Your task to perform on an android device: uninstall "Pandora - Music & Podcasts" Image 0: 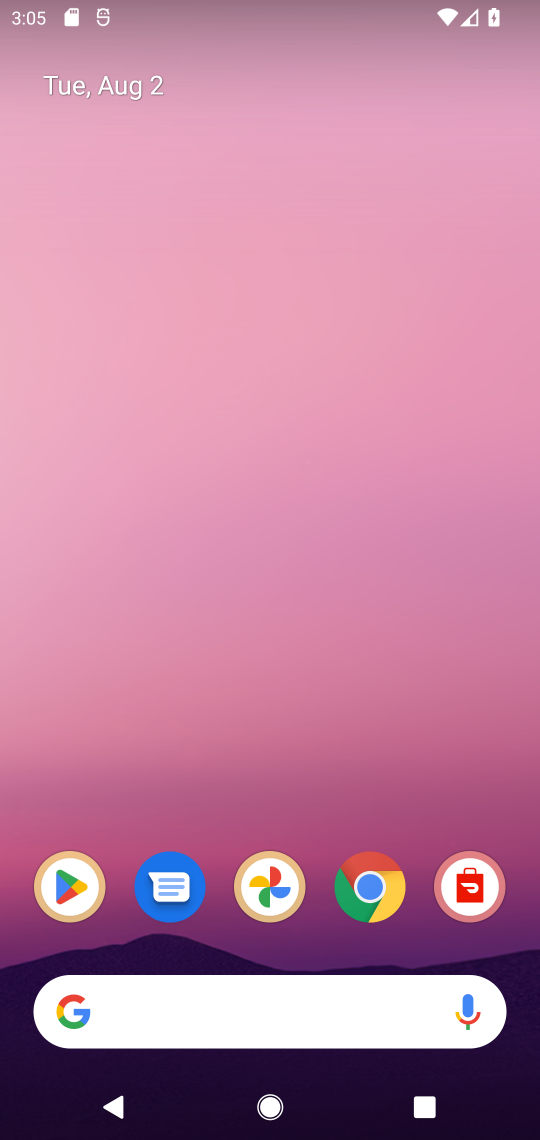
Step 0: drag from (27, 1054) to (224, 420)
Your task to perform on an android device: uninstall "Pandora - Music & Podcasts" Image 1: 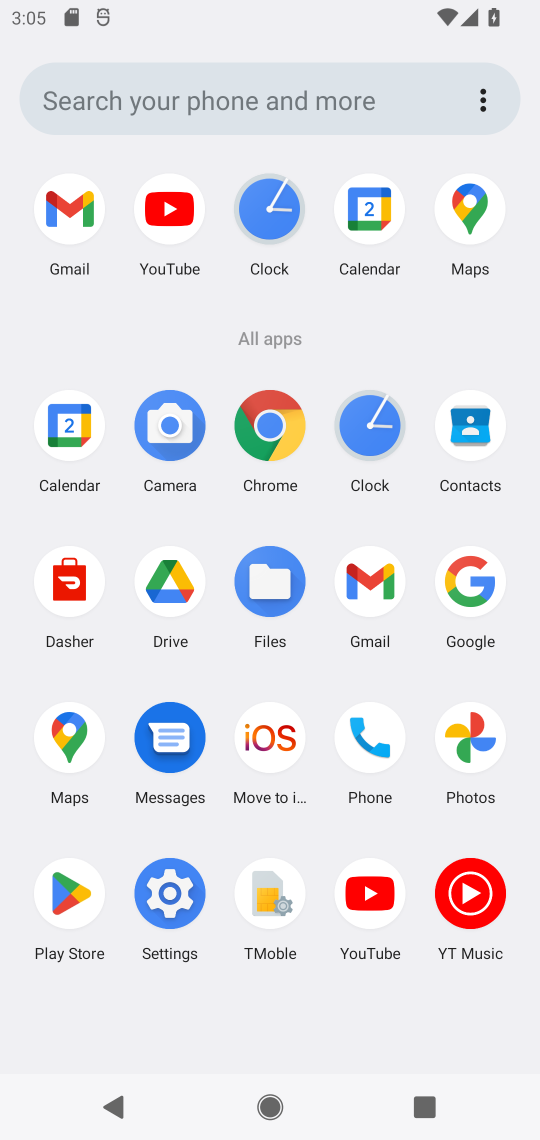
Step 1: click (75, 896)
Your task to perform on an android device: uninstall "Pandora - Music & Podcasts" Image 2: 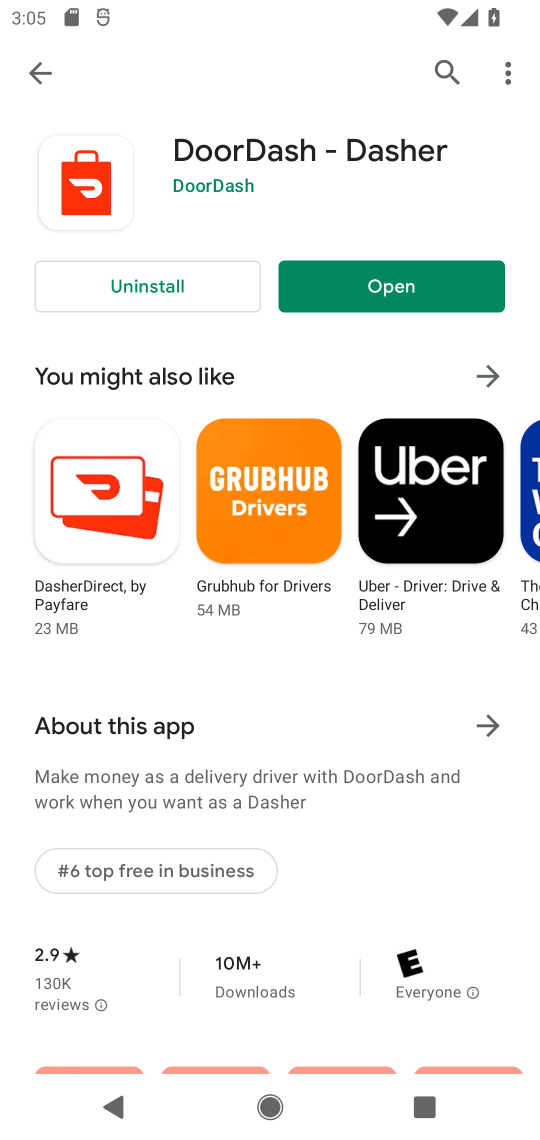
Step 2: click (40, 81)
Your task to perform on an android device: uninstall "Pandora - Music & Podcasts" Image 3: 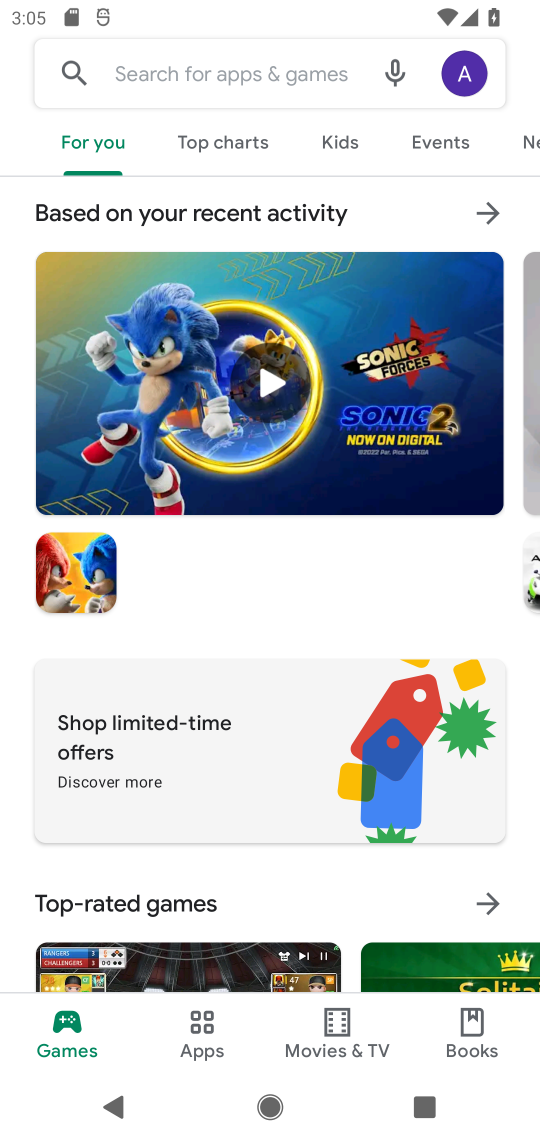
Step 3: click (127, 67)
Your task to perform on an android device: uninstall "Pandora - Music & Podcasts" Image 4: 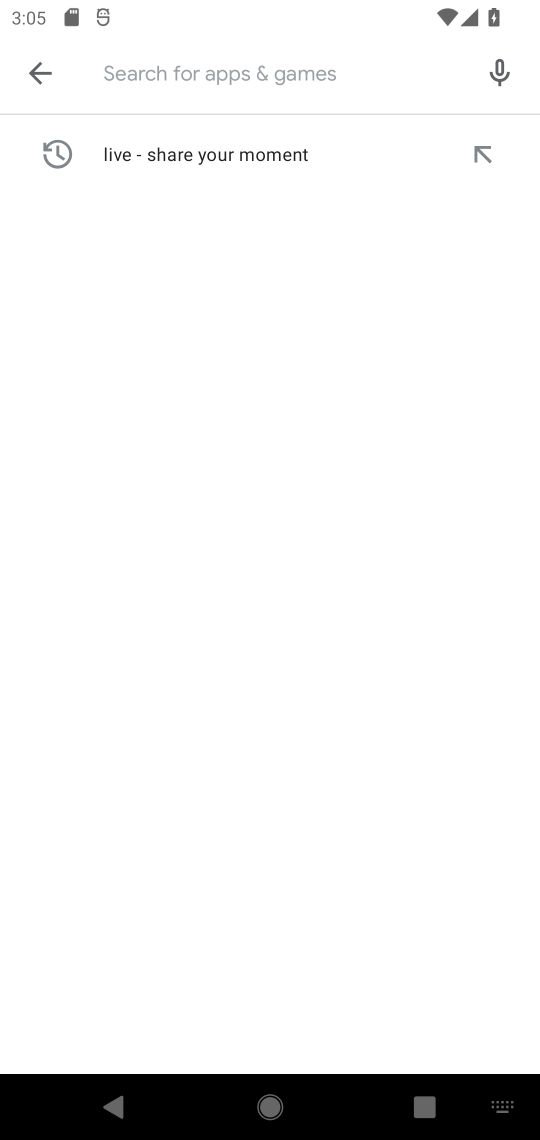
Step 4: type "Pandora - Music & Podcasts"
Your task to perform on an android device: uninstall "Pandora - Music & Podcasts" Image 5: 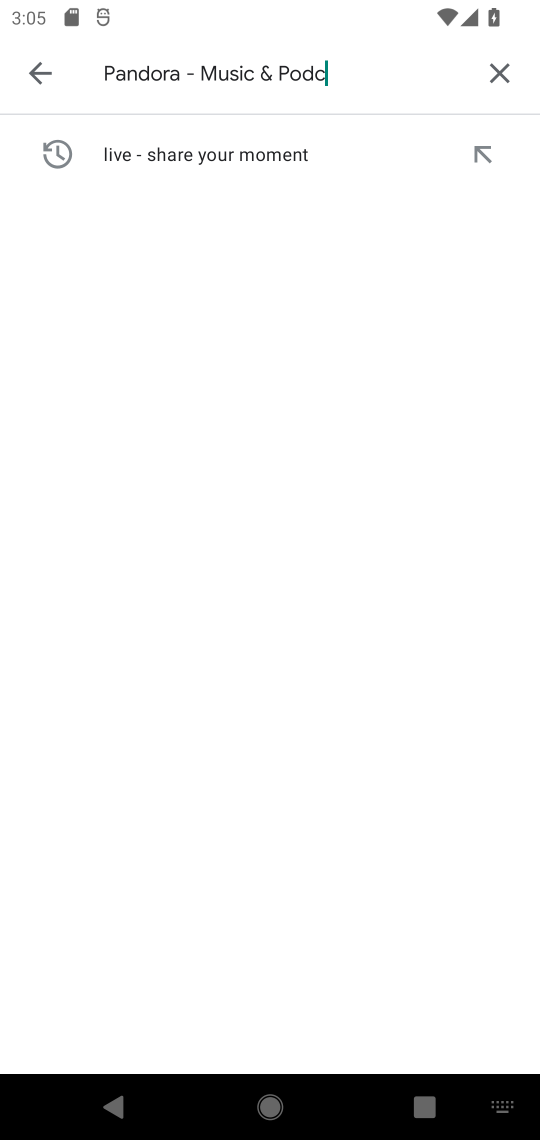
Step 5: type ""
Your task to perform on an android device: uninstall "Pandora - Music & Podcasts" Image 6: 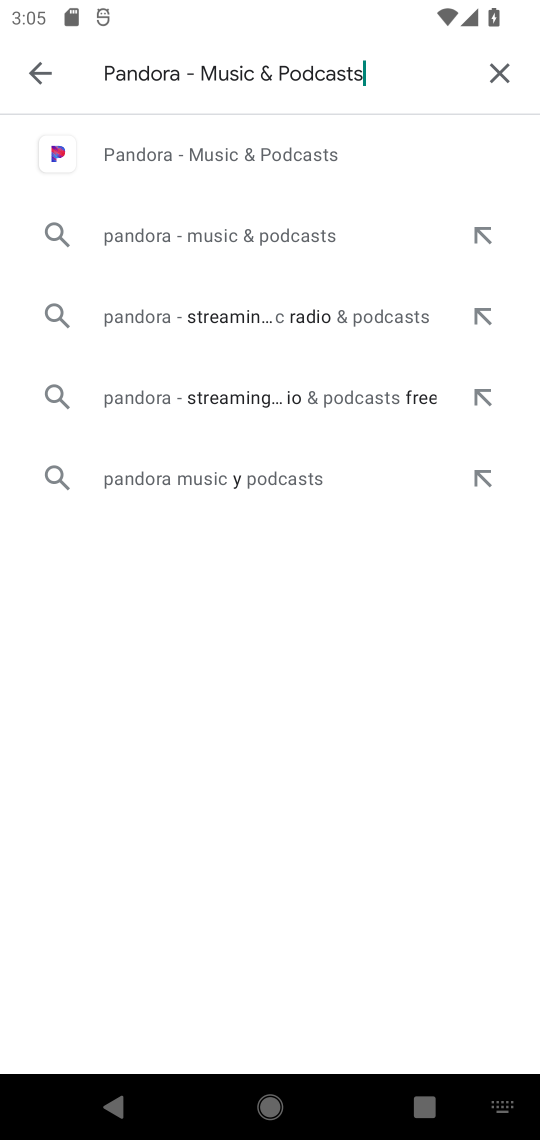
Step 6: click (281, 147)
Your task to perform on an android device: uninstall "Pandora - Music & Podcasts" Image 7: 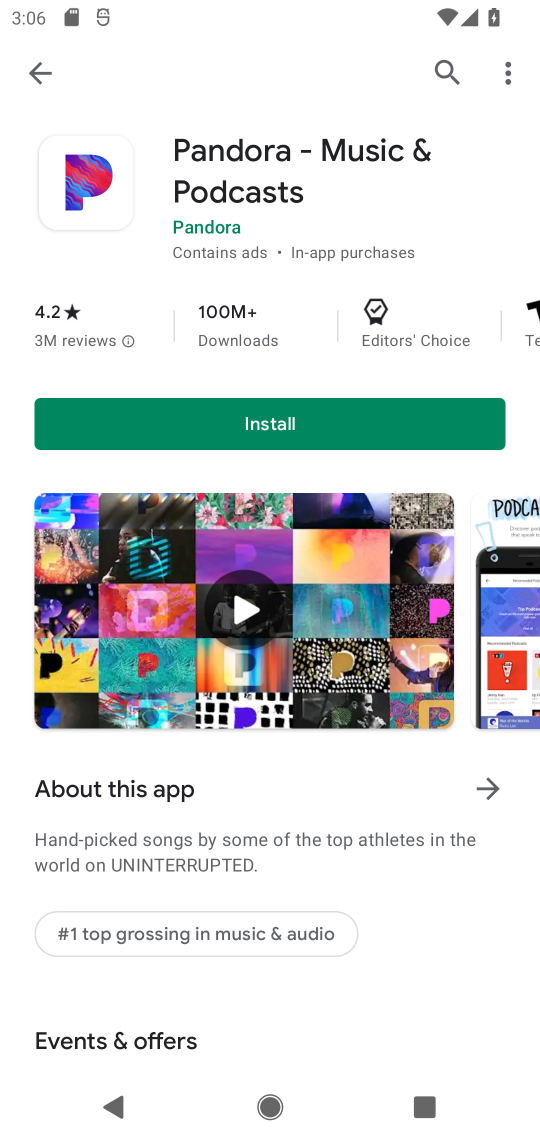
Step 7: task complete